Your task to perform on an android device: clear all cookies in the chrome app Image 0: 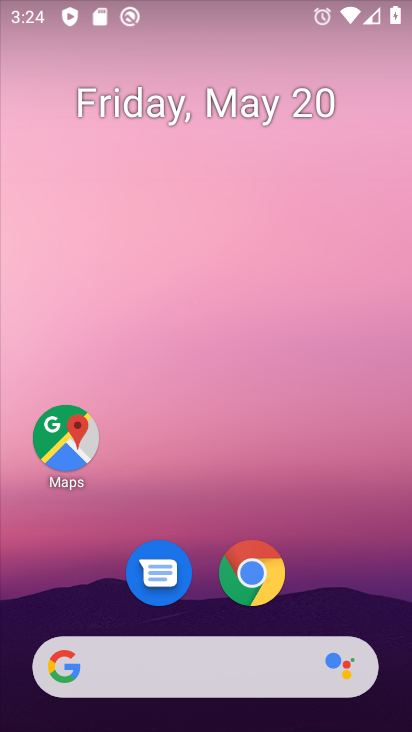
Step 0: click (259, 592)
Your task to perform on an android device: clear all cookies in the chrome app Image 1: 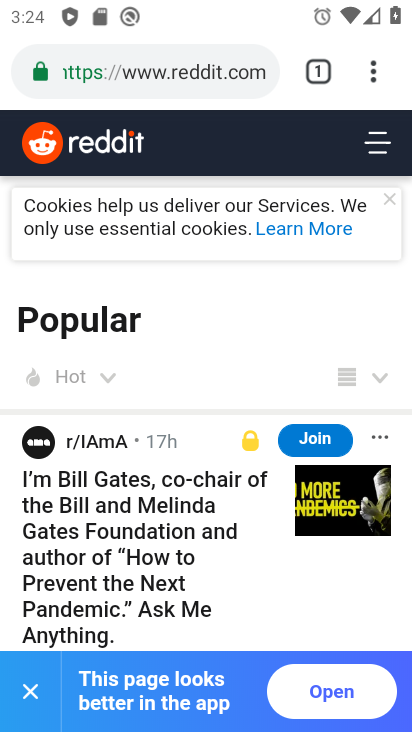
Step 1: press home button
Your task to perform on an android device: clear all cookies in the chrome app Image 2: 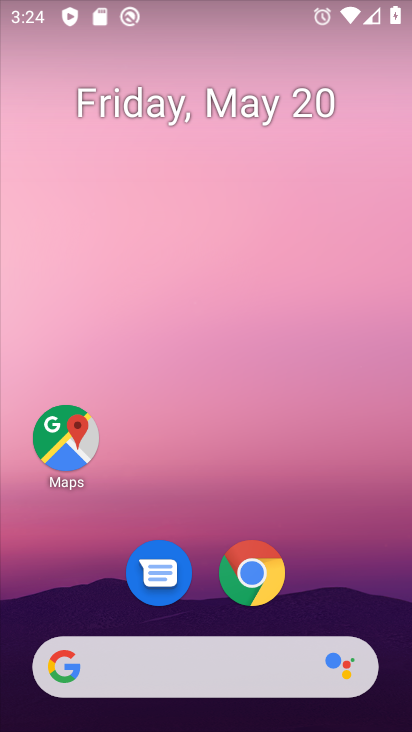
Step 2: click (236, 575)
Your task to perform on an android device: clear all cookies in the chrome app Image 3: 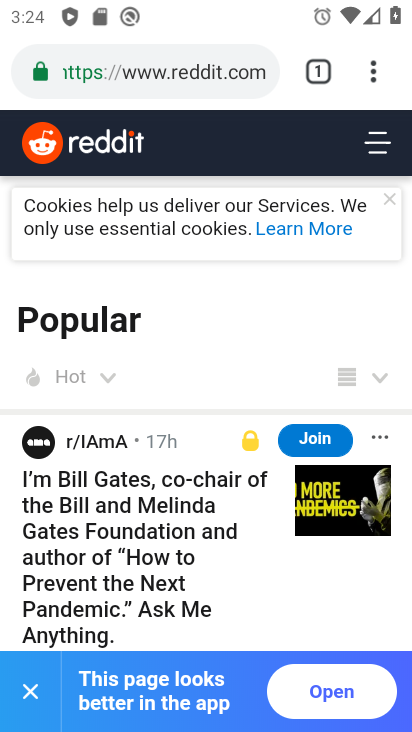
Step 3: click (374, 74)
Your task to perform on an android device: clear all cookies in the chrome app Image 4: 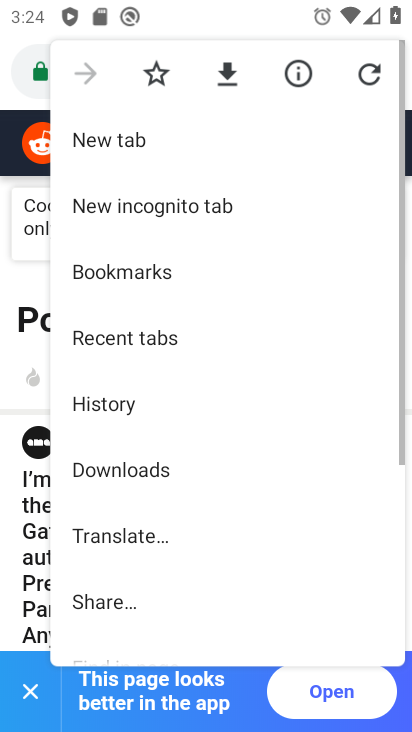
Step 4: click (110, 402)
Your task to perform on an android device: clear all cookies in the chrome app Image 5: 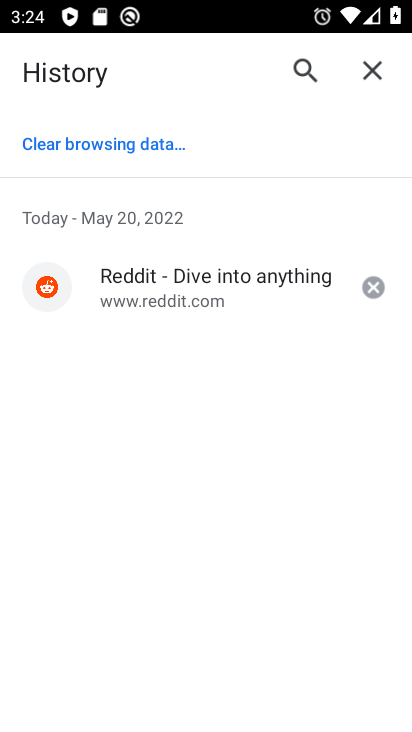
Step 5: click (92, 149)
Your task to perform on an android device: clear all cookies in the chrome app Image 6: 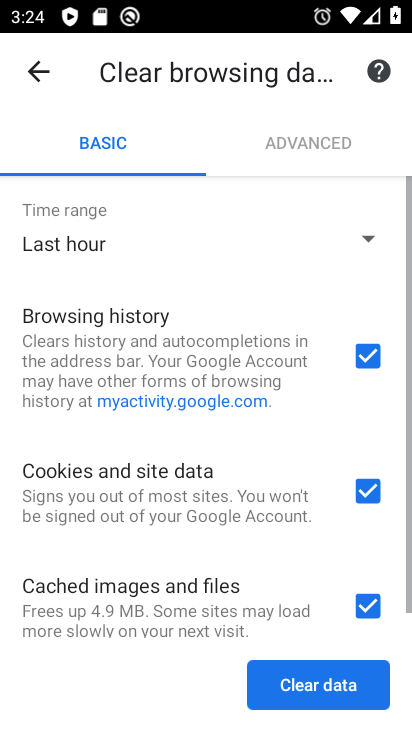
Step 6: click (309, 669)
Your task to perform on an android device: clear all cookies in the chrome app Image 7: 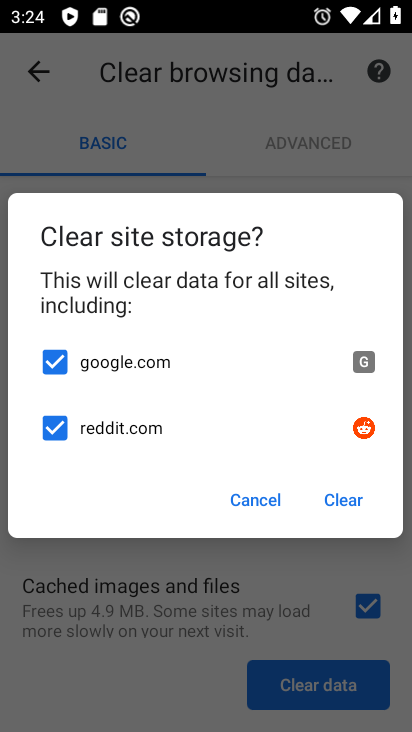
Step 7: click (335, 501)
Your task to perform on an android device: clear all cookies in the chrome app Image 8: 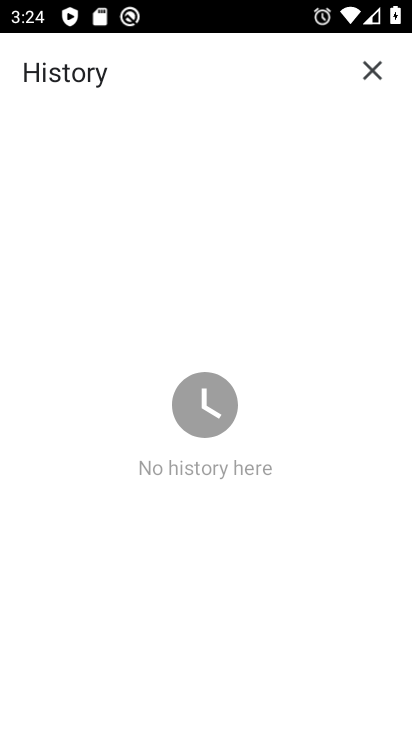
Step 8: task complete